Your task to perform on an android device: Open Amazon Image 0: 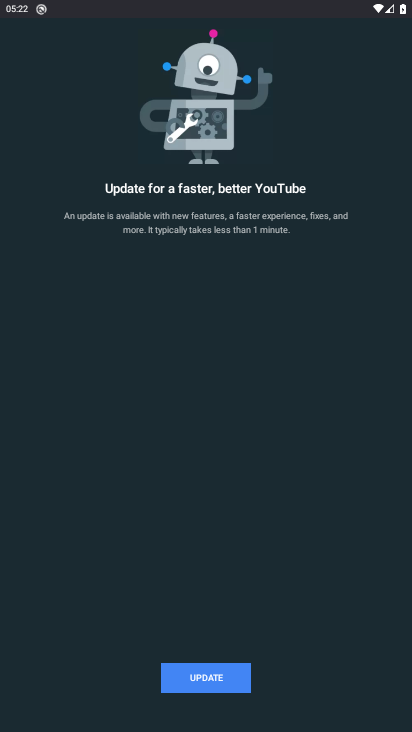
Step 0: press home button
Your task to perform on an android device: Open Amazon Image 1: 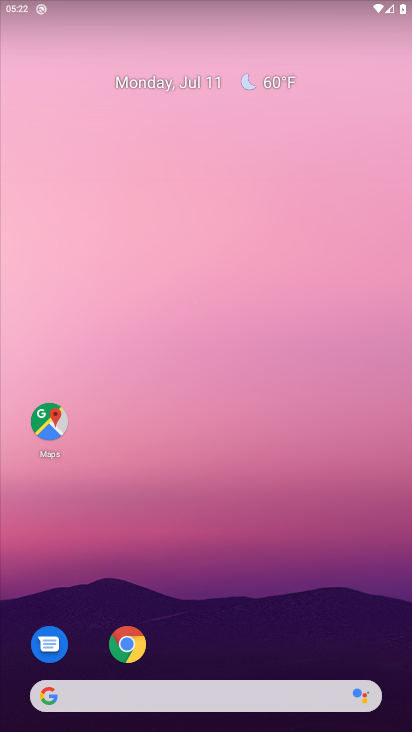
Step 1: click (123, 652)
Your task to perform on an android device: Open Amazon Image 2: 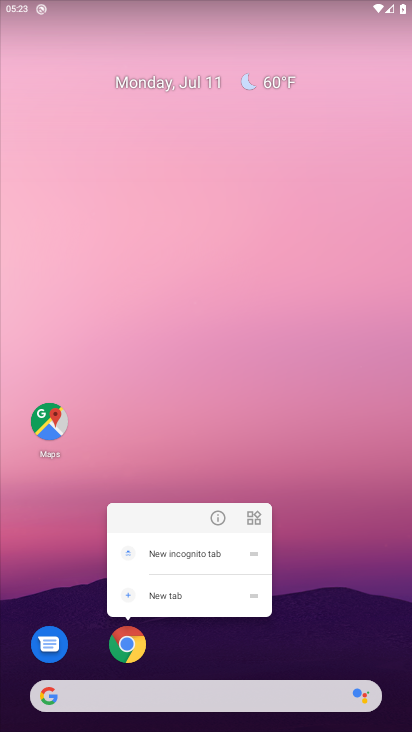
Step 2: click (140, 634)
Your task to perform on an android device: Open Amazon Image 3: 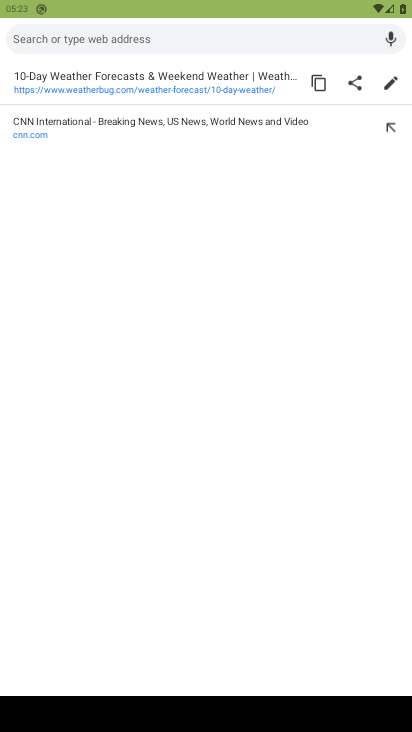
Step 3: click (218, 40)
Your task to perform on an android device: Open Amazon Image 4: 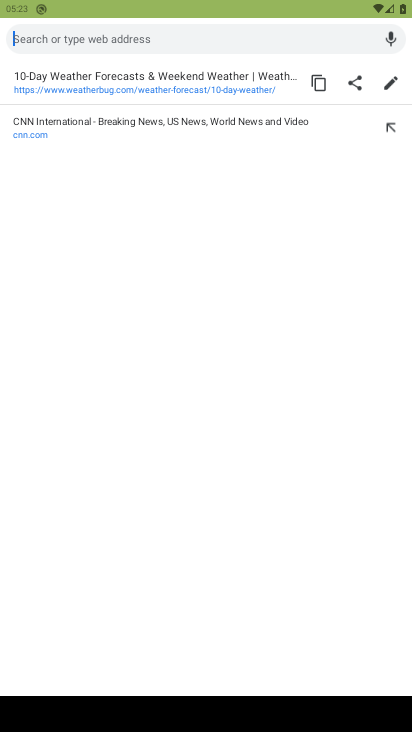
Step 4: click (233, 41)
Your task to perform on an android device: Open Amazon Image 5: 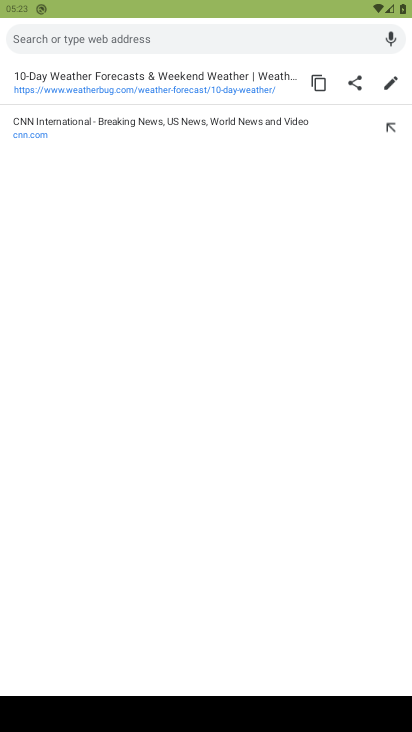
Step 5: click (281, 41)
Your task to perform on an android device: Open Amazon Image 6: 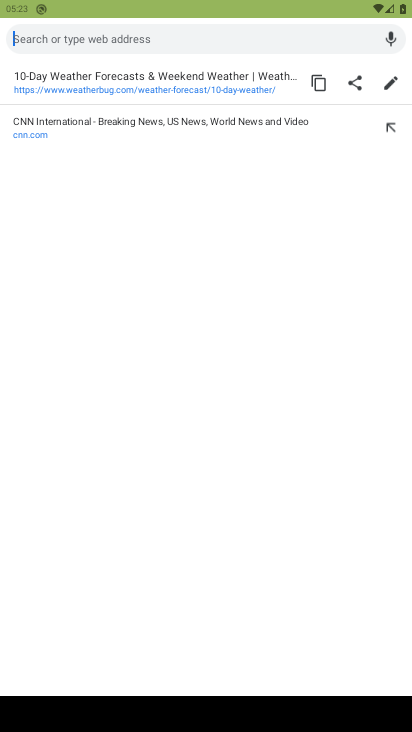
Step 6: press back button
Your task to perform on an android device: Open Amazon Image 7: 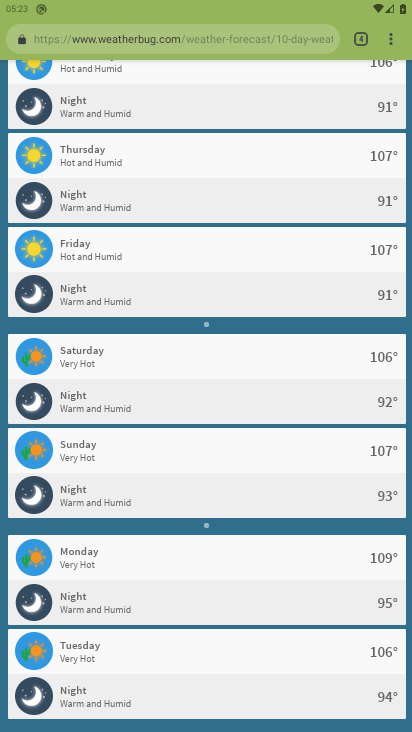
Step 7: click (359, 42)
Your task to perform on an android device: Open Amazon Image 8: 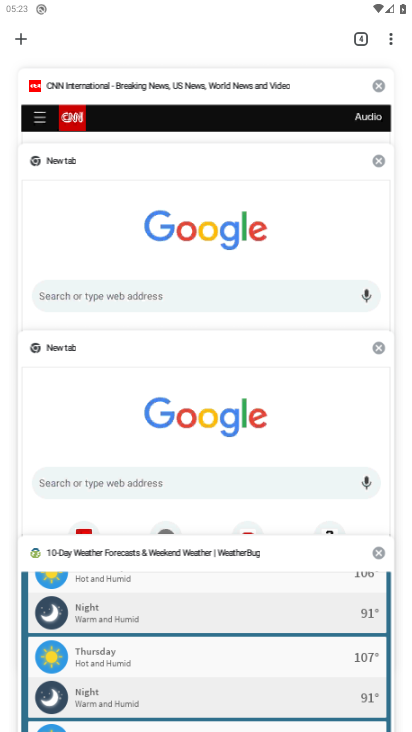
Step 8: click (377, 87)
Your task to perform on an android device: Open Amazon Image 9: 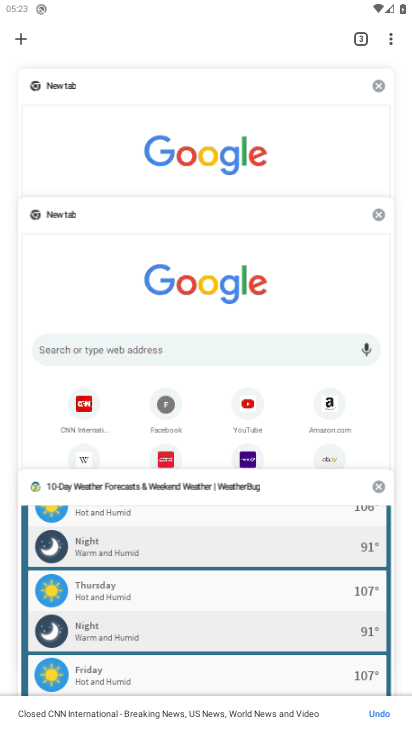
Step 9: click (377, 87)
Your task to perform on an android device: Open Amazon Image 10: 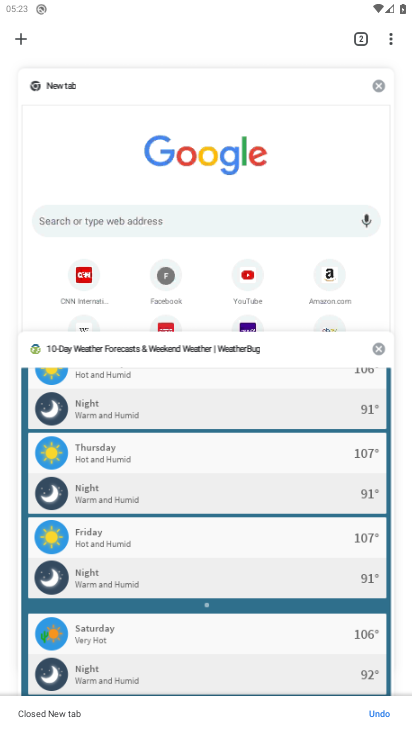
Step 10: click (377, 89)
Your task to perform on an android device: Open Amazon Image 11: 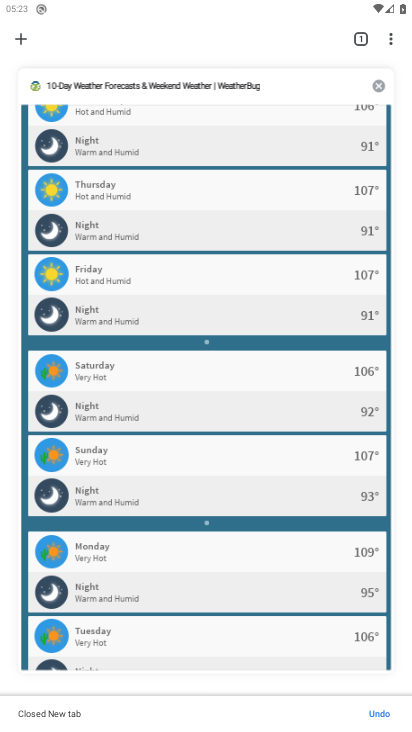
Step 11: click (377, 89)
Your task to perform on an android device: Open Amazon Image 12: 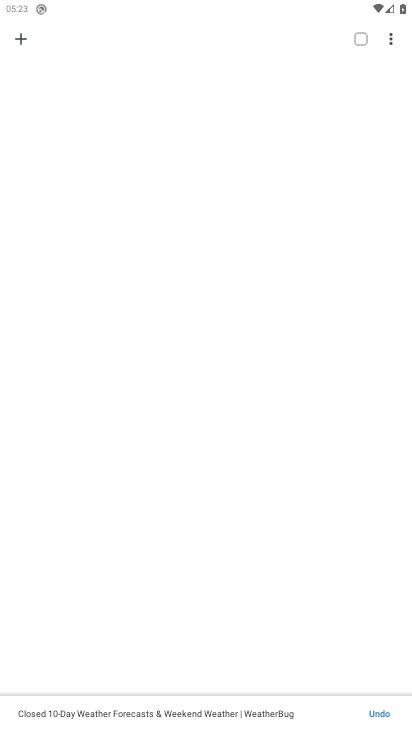
Step 12: click (18, 42)
Your task to perform on an android device: Open Amazon Image 13: 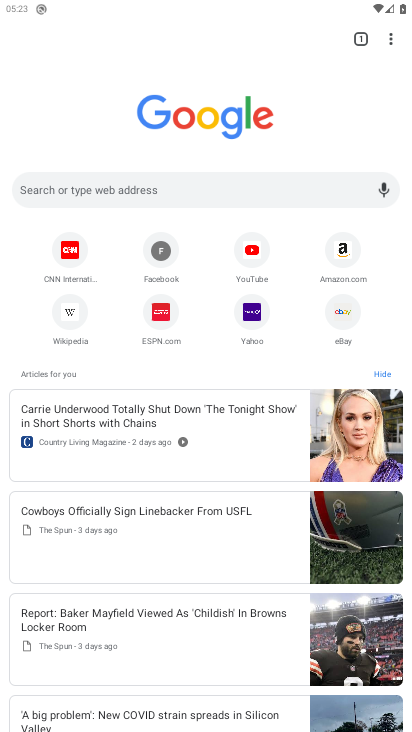
Step 13: click (348, 259)
Your task to perform on an android device: Open Amazon Image 14: 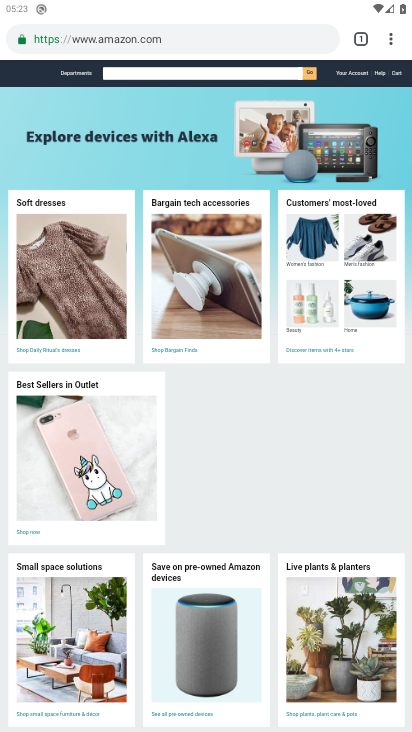
Step 14: task complete